Your task to perform on an android device: toggle airplane mode Image 0: 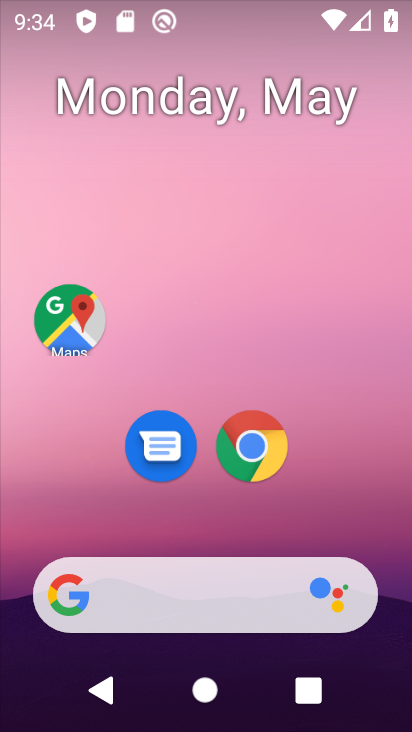
Step 0: drag from (74, 556) to (191, 12)
Your task to perform on an android device: toggle airplane mode Image 1: 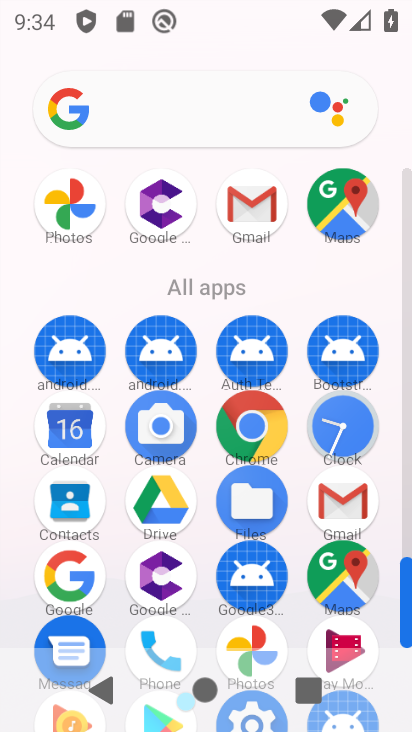
Step 1: drag from (216, 545) to (243, 441)
Your task to perform on an android device: toggle airplane mode Image 2: 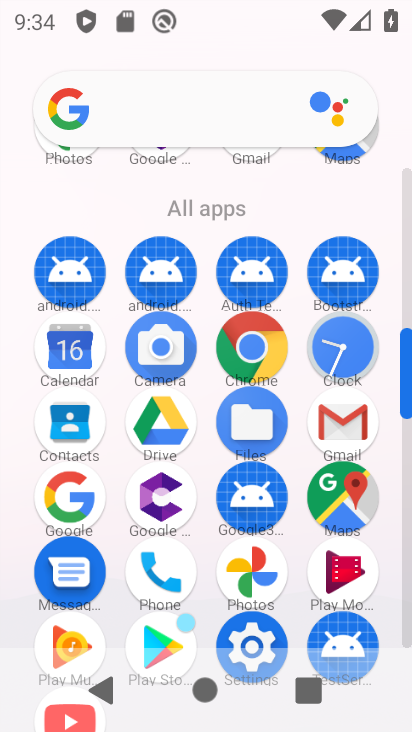
Step 2: click (256, 633)
Your task to perform on an android device: toggle airplane mode Image 3: 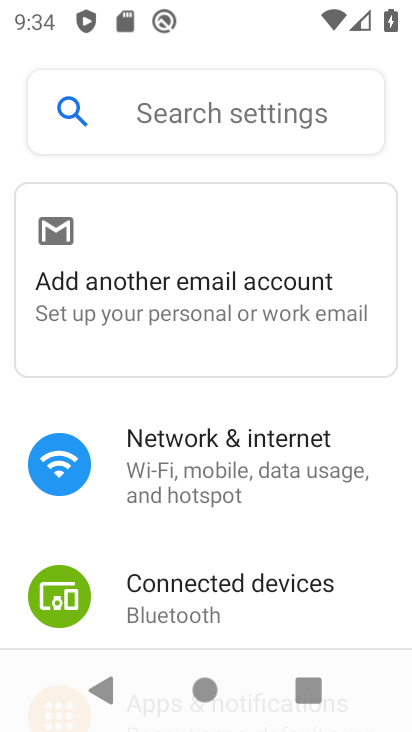
Step 3: click (236, 506)
Your task to perform on an android device: toggle airplane mode Image 4: 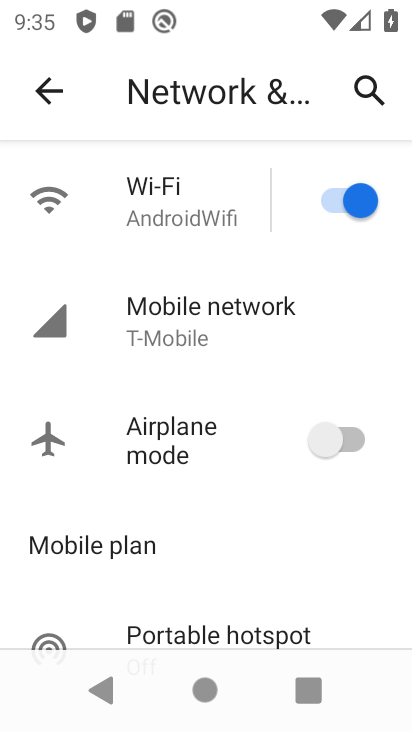
Step 4: click (376, 433)
Your task to perform on an android device: toggle airplane mode Image 5: 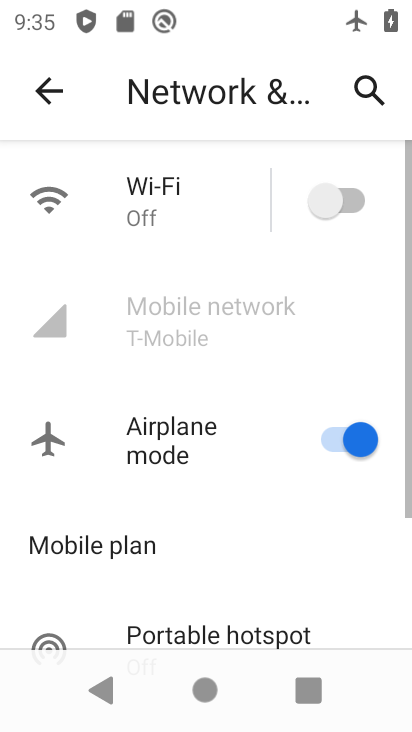
Step 5: task complete